Your task to perform on an android device: empty trash in the gmail app Image 0: 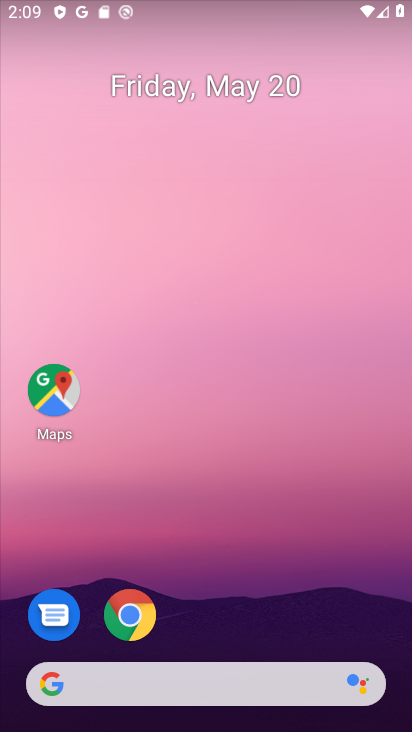
Step 0: drag from (248, 612) to (177, 148)
Your task to perform on an android device: empty trash in the gmail app Image 1: 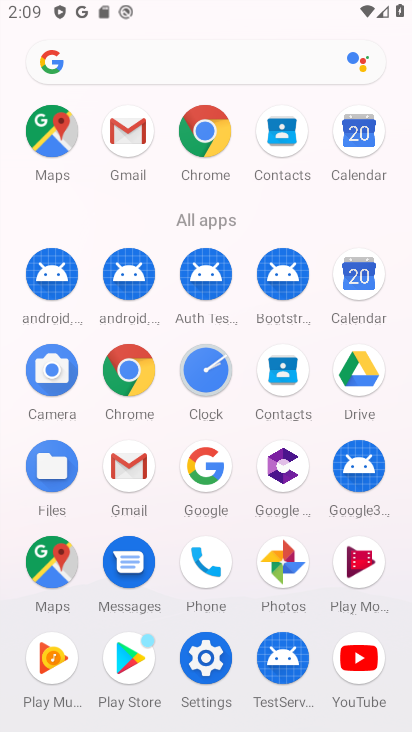
Step 1: click (140, 153)
Your task to perform on an android device: empty trash in the gmail app Image 2: 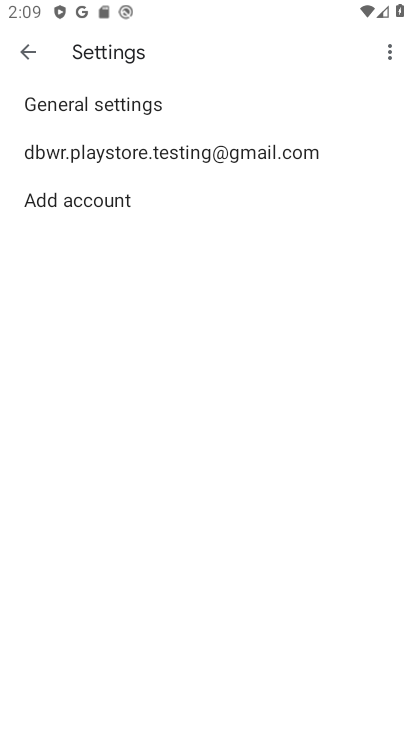
Step 2: click (140, 153)
Your task to perform on an android device: empty trash in the gmail app Image 3: 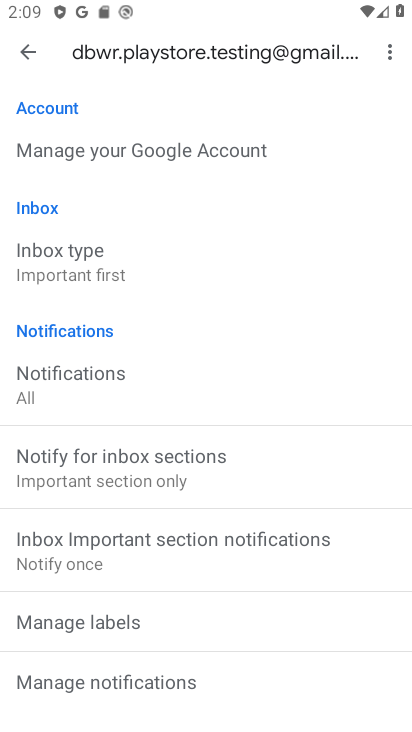
Step 3: click (27, 52)
Your task to perform on an android device: empty trash in the gmail app Image 4: 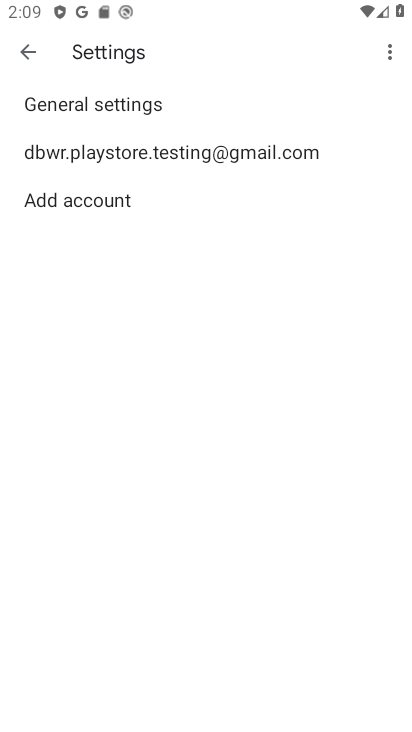
Step 4: click (27, 52)
Your task to perform on an android device: empty trash in the gmail app Image 5: 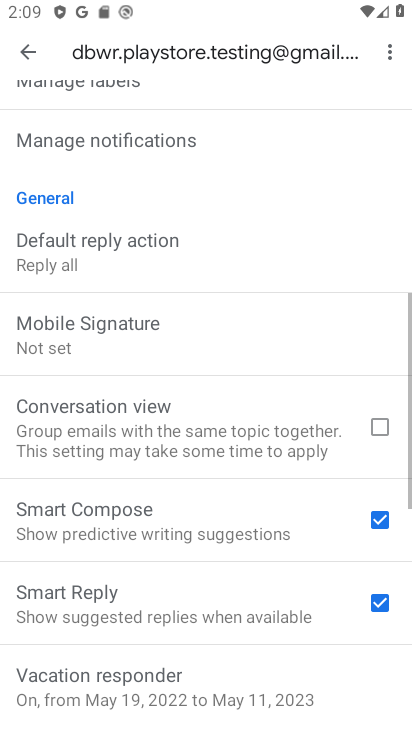
Step 5: click (27, 52)
Your task to perform on an android device: empty trash in the gmail app Image 6: 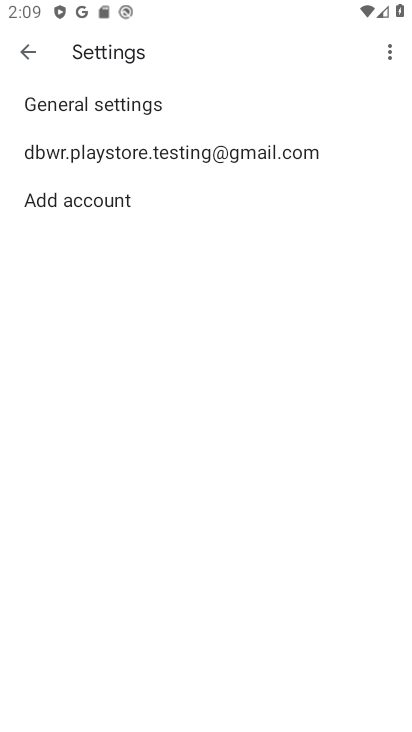
Step 6: click (27, 52)
Your task to perform on an android device: empty trash in the gmail app Image 7: 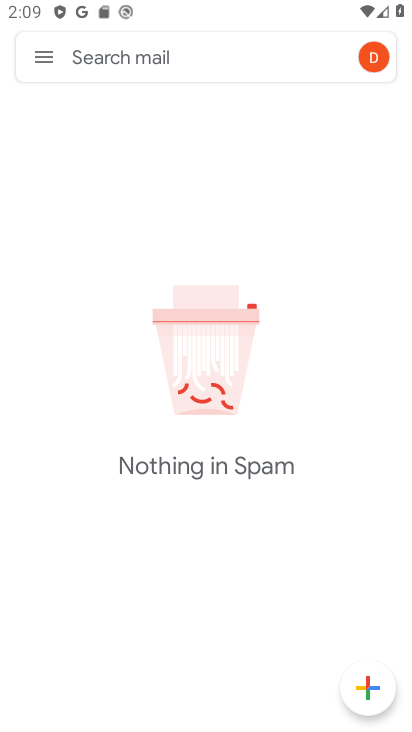
Step 7: click (30, 52)
Your task to perform on an android device: empty trash in the gmail app Image 8: 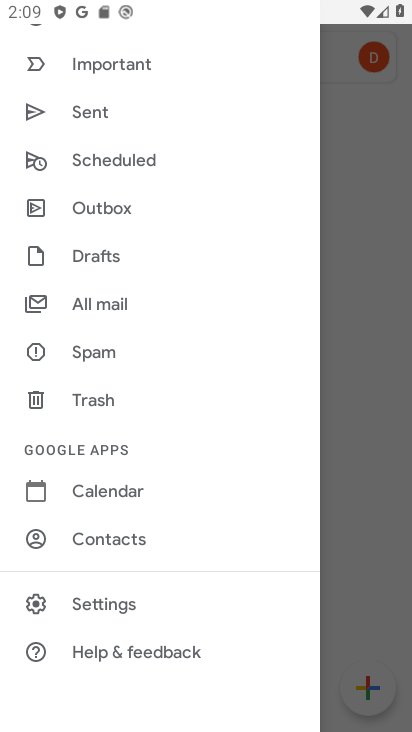
Step 8: click (142, 405)
Your task to perform on an android device: empty trash in the gmail app Image 9: 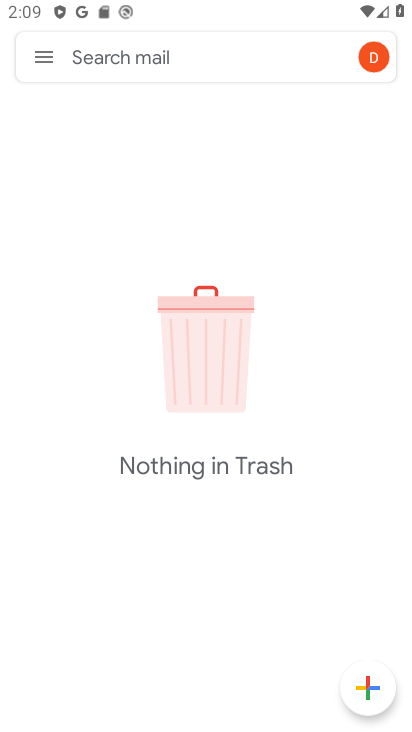
Step 9: task complete